Your task to perform on an android device: turn notification dots on Image 0: 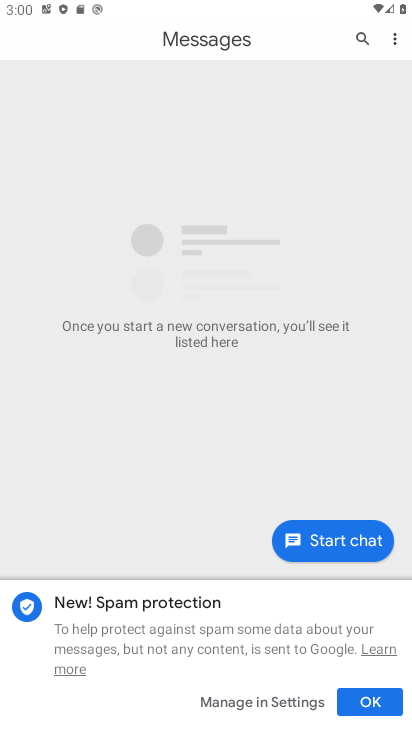
Step 0: press home button
Your task to perform on an android device: turn notification dots on Image 1: 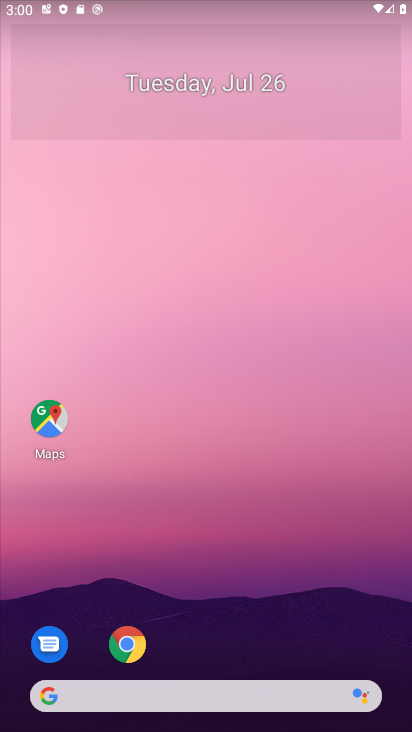
Step 1: drag from (206, 632) to (163, 113)
Your task to perform on an android device: turn notification dots on Image 2: 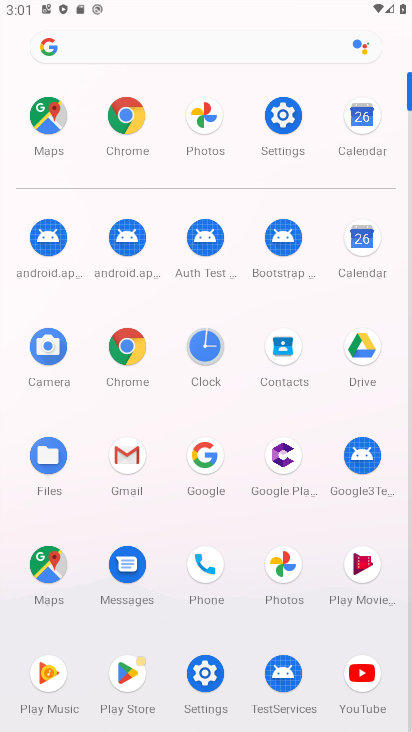
Step 2: click (275, 110)
Your task to perform on an android device: turn notification dots on Image 3: 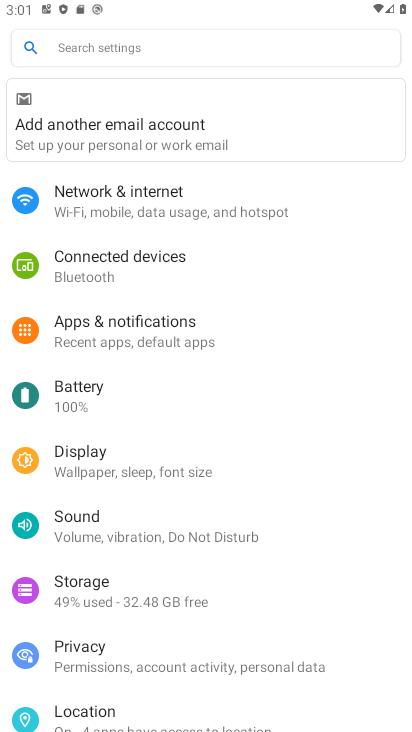
Step 3: click (125, 319)
Your task to perform on an android device: turn notification dots on Image 4: 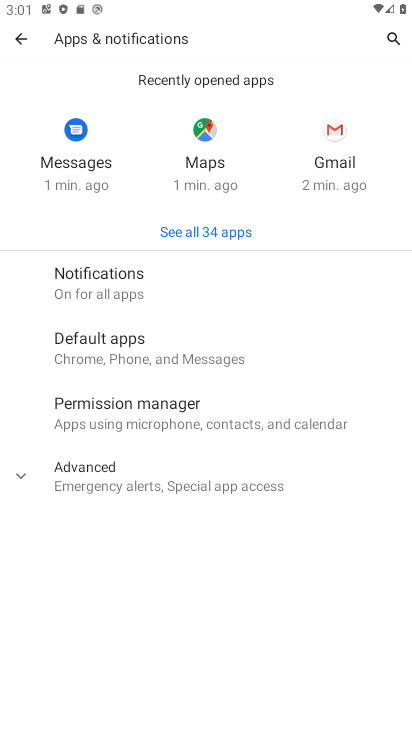
Step 4: click (23, 471)
Your task to perform on an android device: turn notification dots on Image 5: 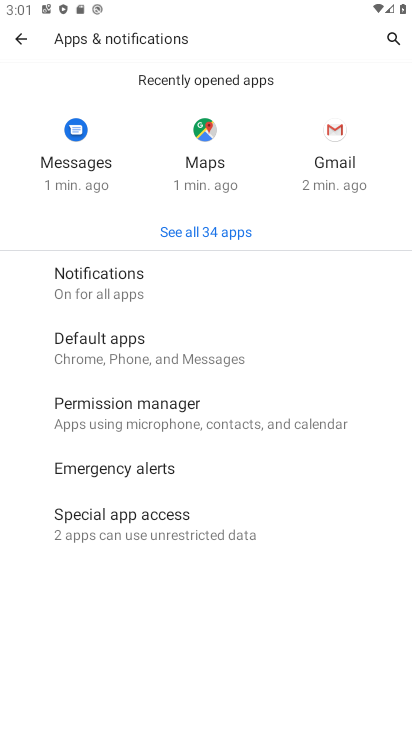
Step 5: click (68, 275)
Your task to perform on an android device: turn notification dots on Image 6: 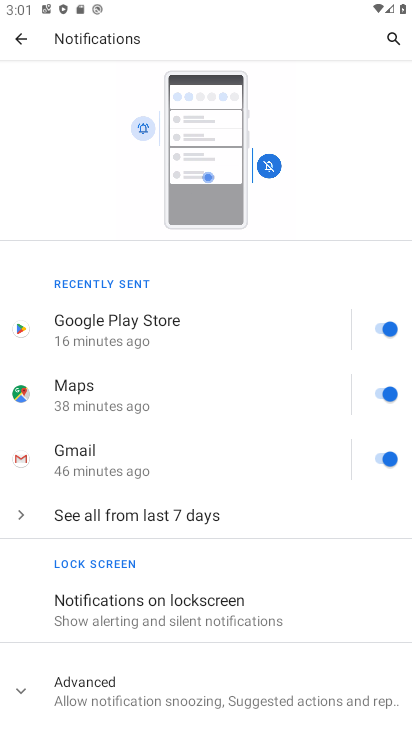
Step 6: click (23, 691)
Your task to perform on an android device: turn notification dots on Image 7: 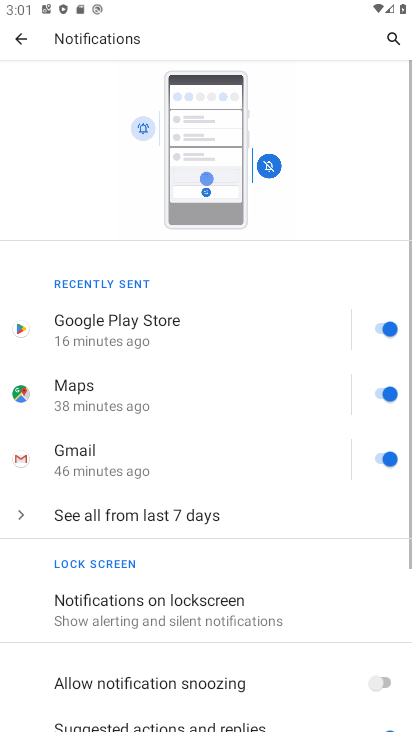
Step 7: task complete